Your task to perform on an android device: Open settings Image 0: 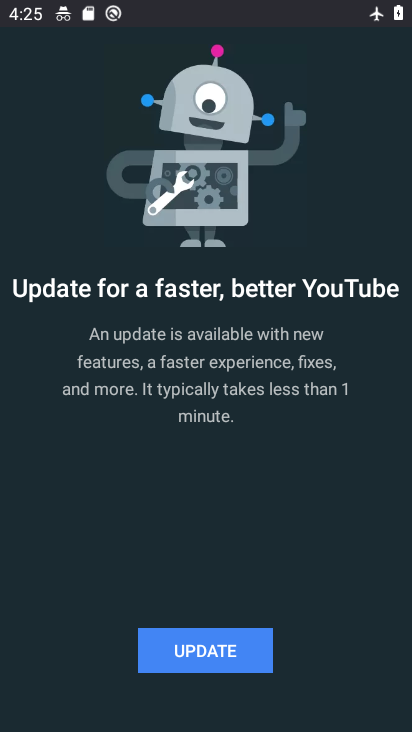
Step 0: click (199, 647)
Your task to perform on an android device: Open settings Image 1: 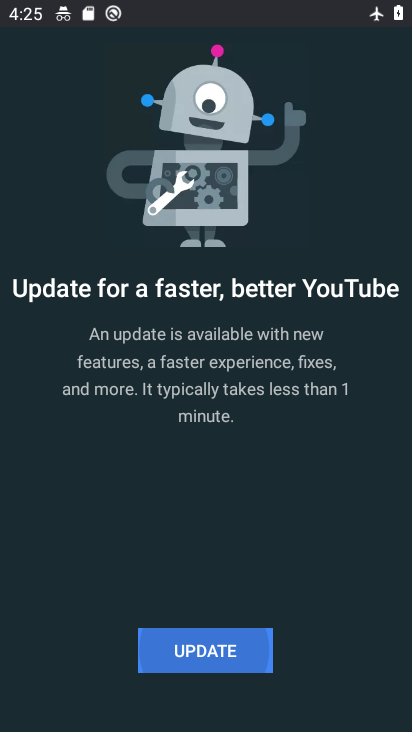
Step 1: click (195, 649)
Your task to perform on an android device: Open settings Image 2: 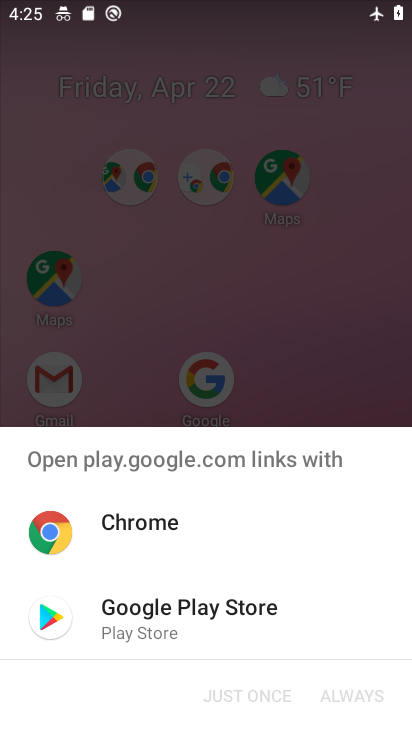
Step 2: click (225, 278)
Your task to perform on an android device: Open settings Image 3: 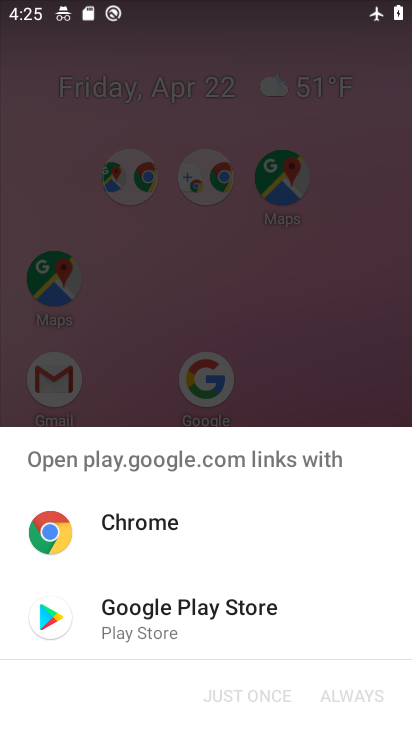
Step 3: click (232, 287)
Your task to perform on an android device: Open settings Image 4: 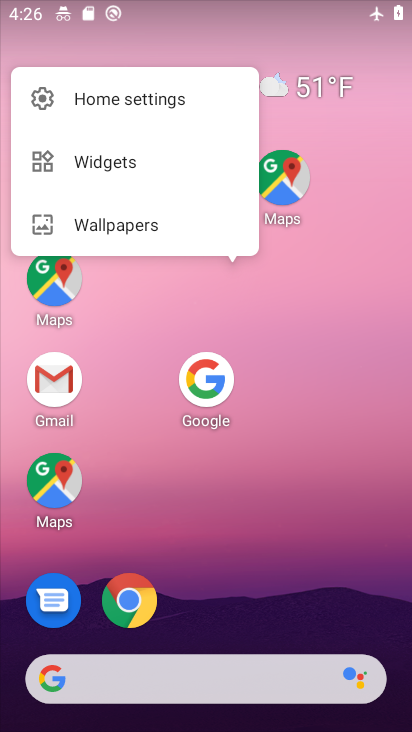
Step 4: drag from (240, 447) to (184, 180)
Your task to perform on an android device: Open settings Image 5: 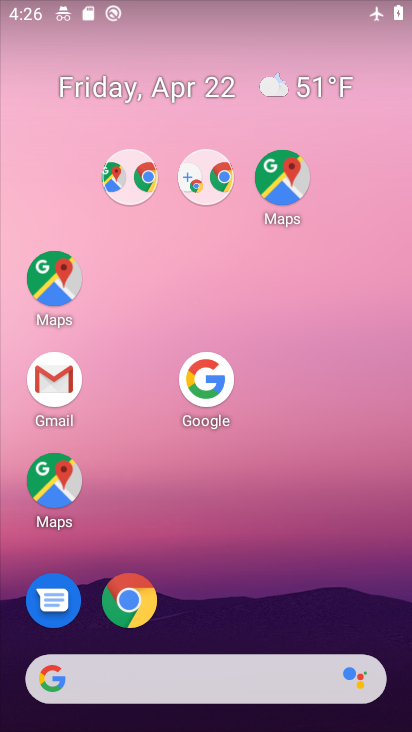
Step 5: click (267, 280)
Your task to perform on an android device: Open settings Image 6: 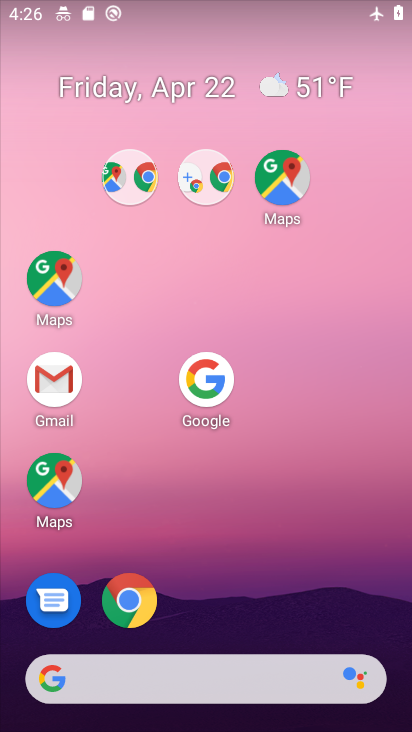
Step 6: drag from (197, 589) to (69, 44)
Your task to perform on an android device: Open settings Image 7: 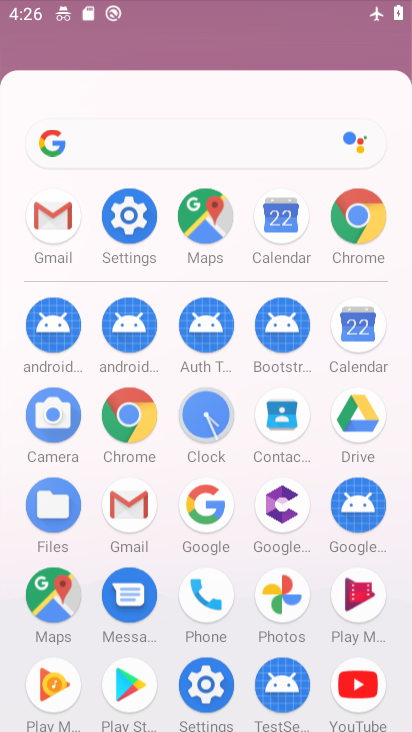
Step 7: drag from (236, 541) to (89, 54)
Your task to perform on an android device: Open settings Image 8: 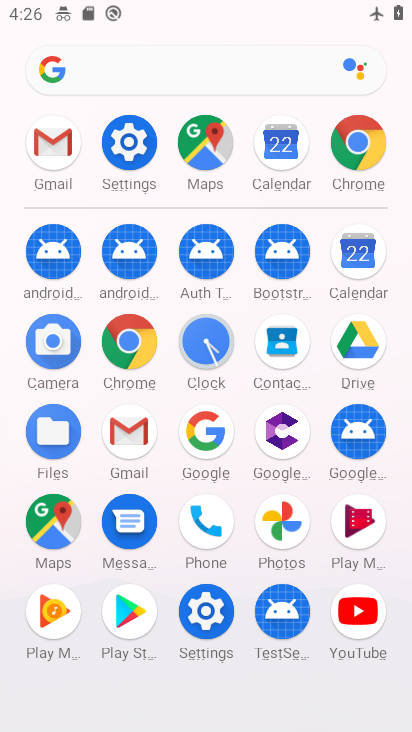
Step 8: click (126, 329)
Your task to perform on an android device: Open settings Image 9: 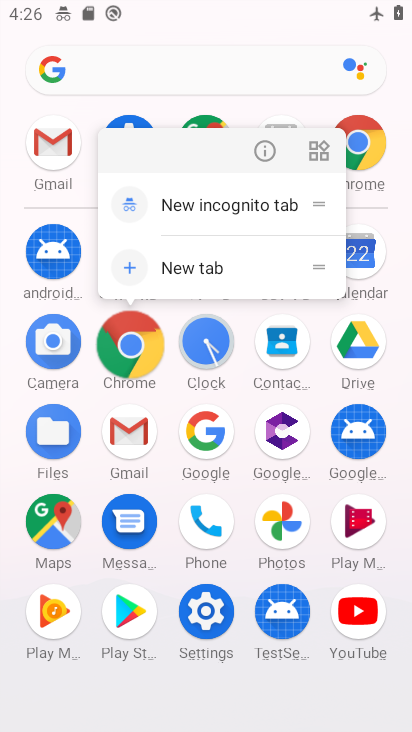
Step 9: click (125, 359)
Your task to perform on an android device: Open settings Image 10: 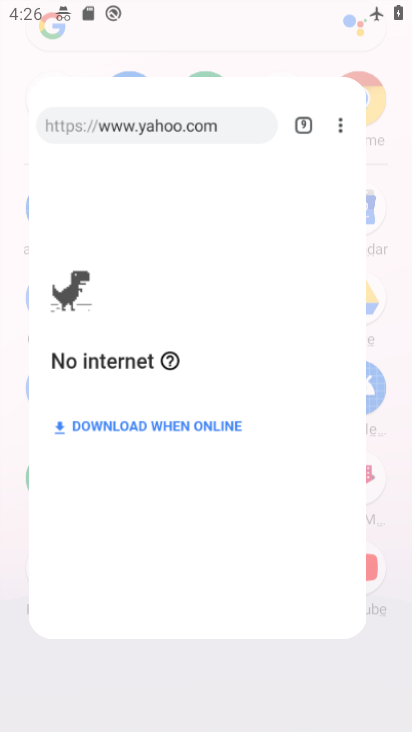
Step 10: click (125, 359)
Your task to perform on an android device: Open settings Image 11: 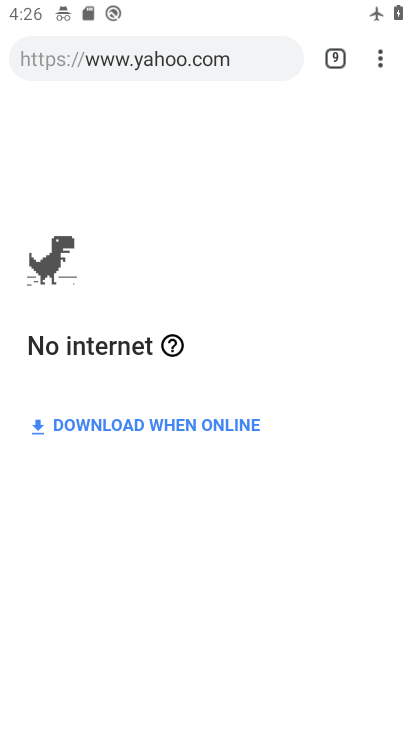
Step 11: press home button
Your task to perform on an android device: Open settings Image 12: 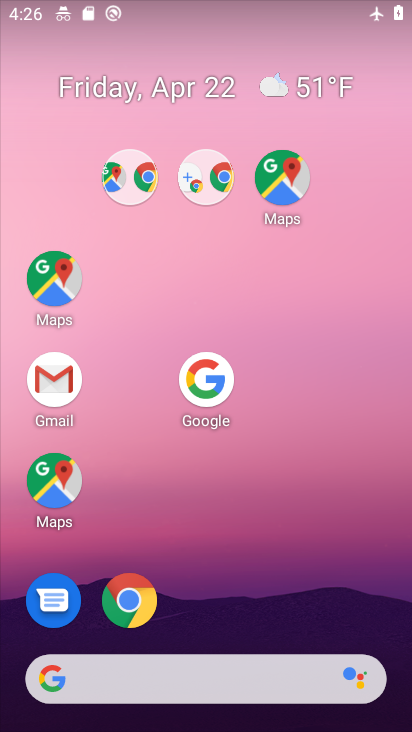
Step 12: drag from (175, 362) to (88, 96)
Your task to perform on an android device: Open settings Image 13: 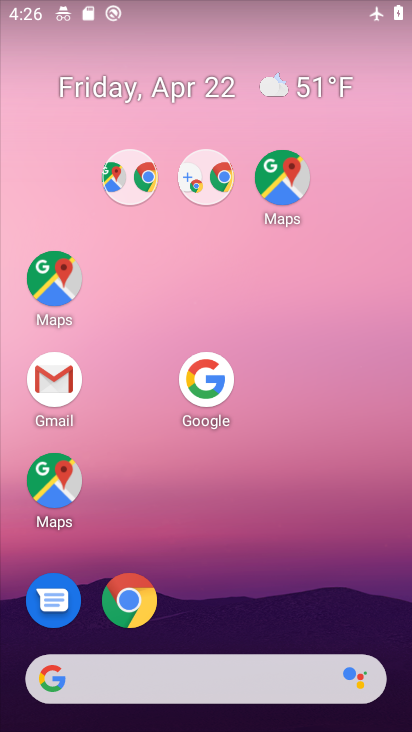
Step 13: drag from (265, 469) to (128, 15)
Your task to perform on an android device: Open settings Image 14: 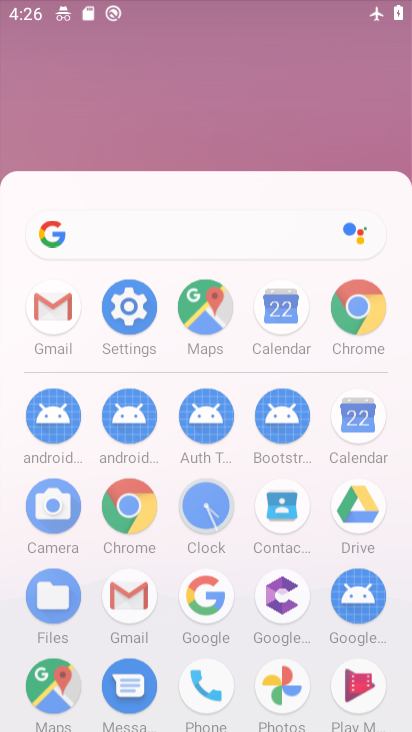
Step 14: drag from (220, 213) to (194, 132)
Your task to perform on an android device: Open settings Image 15: 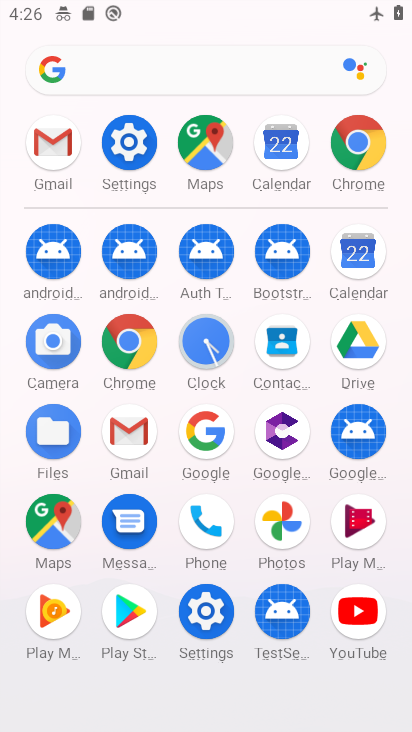
Step 15: click (124, 140)
Your task to perform on an android device: Open settings Image 16: 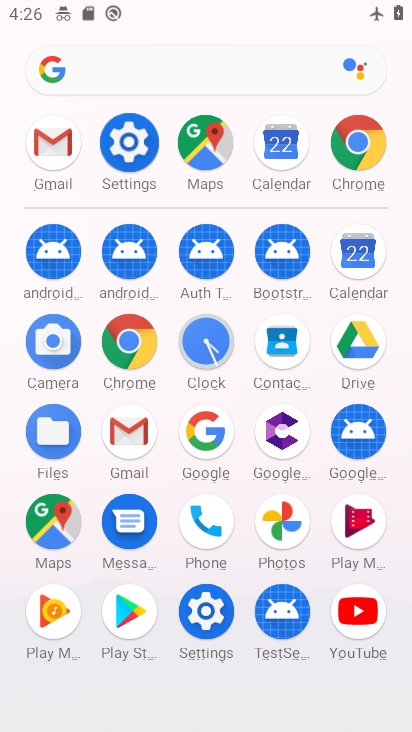
Step 16: click (127, 142)
Your task to perform on an android device: Open settings Image 17: 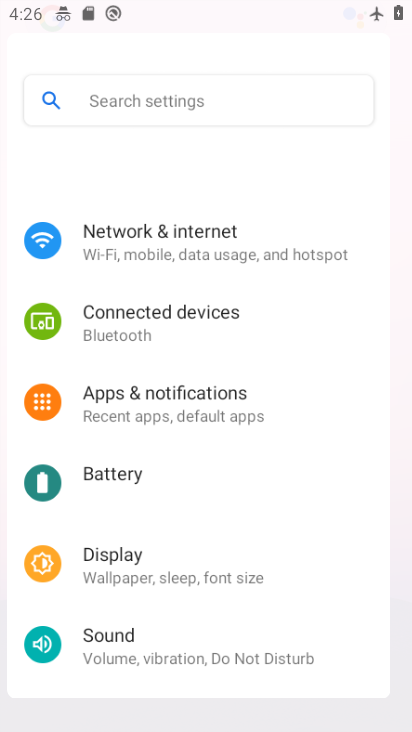
Step 17: click (128, 144)
Your task to perform on an android device: Open settings Image 18: 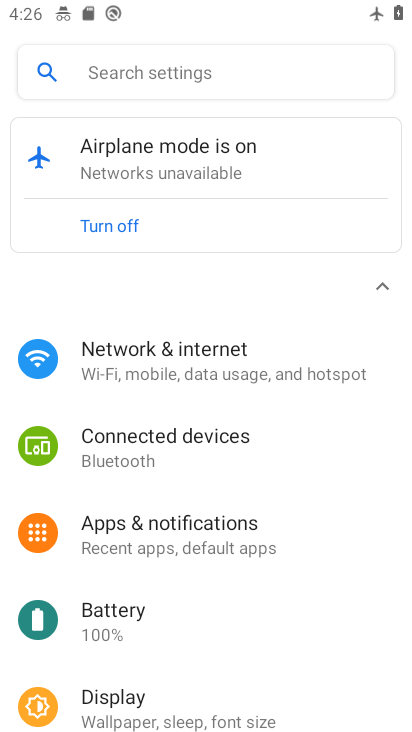
Step 18: drag from (169, 511) to (109, 194)
Your task to perform on an android device: Open settings Image 19: 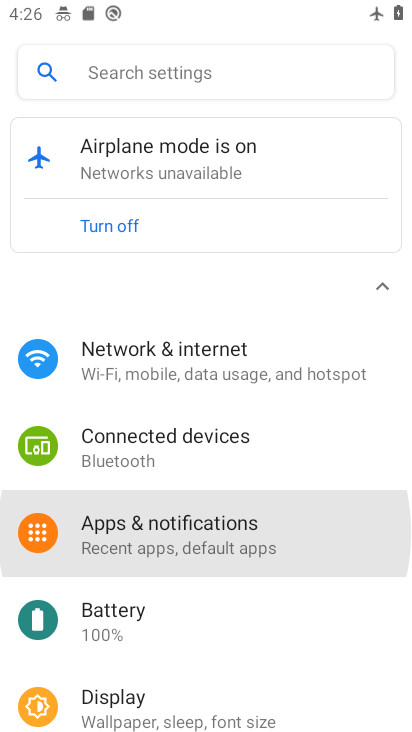
Step 19: drag from (169, 507) to (154, 188)
Your task to perform on an android device: Open settings Image 20: 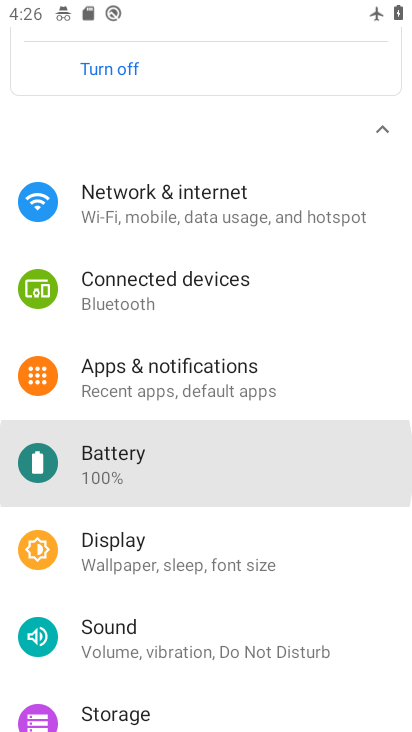
Step 20: drag from (205, 551) to (140, 254)
Your task to perform on an android device: Open settings Image 21: 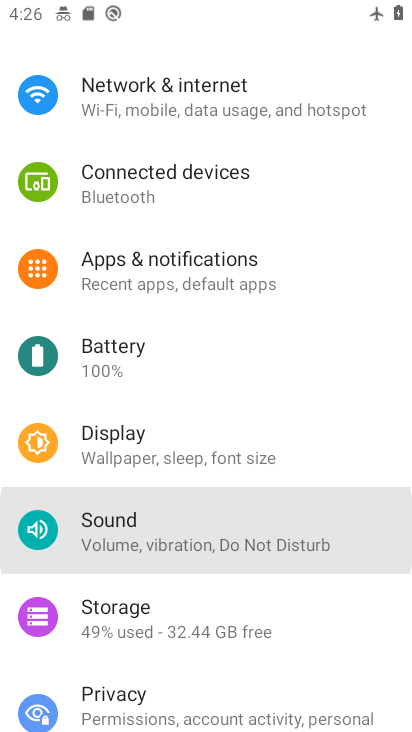
Step 21: drag from (163, 533) to (126, 194)
Your task to perform on an android device: Open settings Image 22: 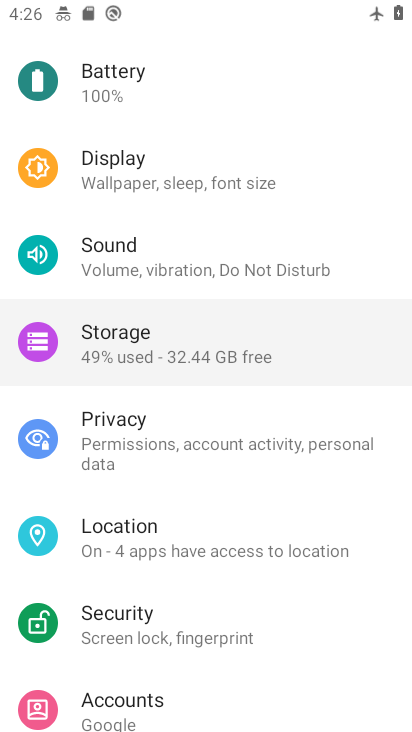
Step 22: drag from (110, 369) to (88, 183)
Your task to perform on an android device: Open settings Image 23: 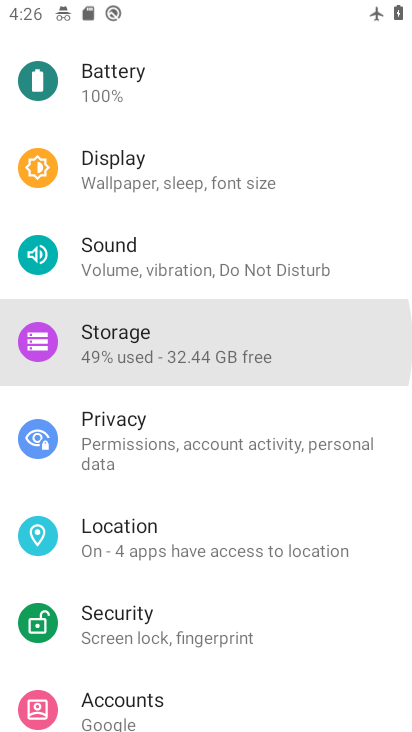
Step 23: drag from (135, 405) to (88, 130)
Your task to perform on an android device: Open settings Image 24: 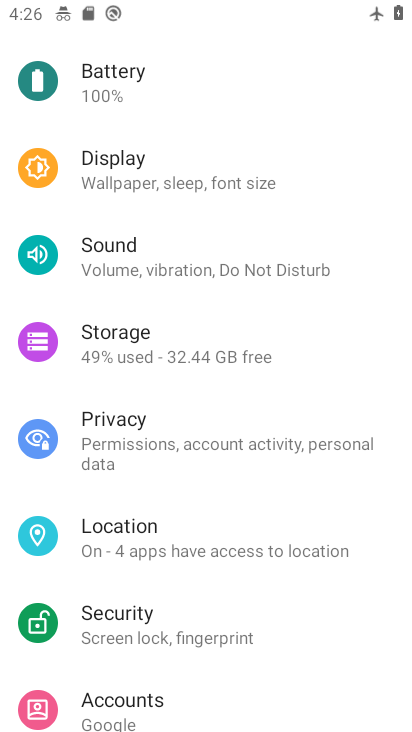
Step 24: drag from (172, 334) to (157, 541)
Your task to perform on an android device: Open settings Image 25: 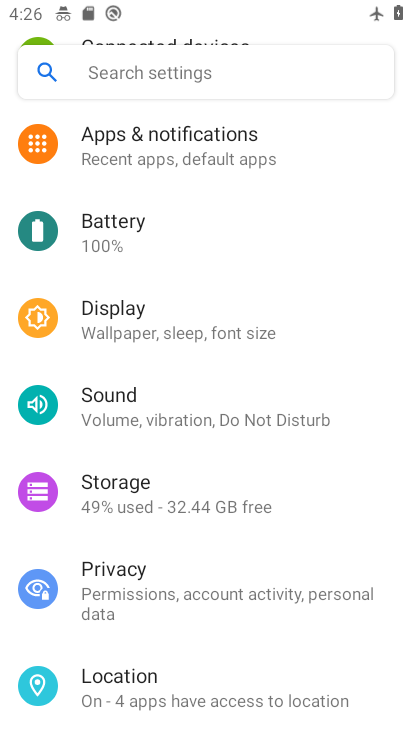
Step 25: click (216, 523)
Your task to perform on an android device: Open settings Image 26: 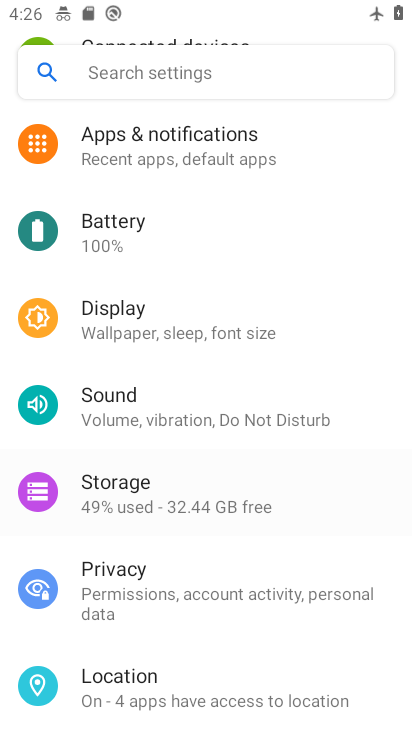
Step 26: drag from (208, 474) to (212, 538)
Your task to perform on an android device: Open settings Image 27: 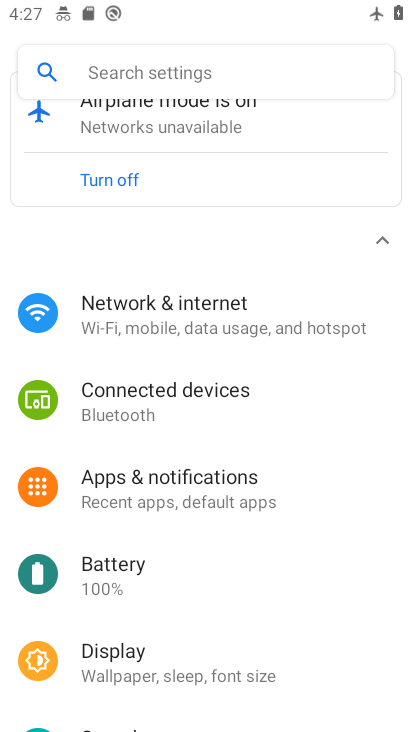
Step 27: click (259, 465)
Your task to perform on an android device: Open settings Image 28: 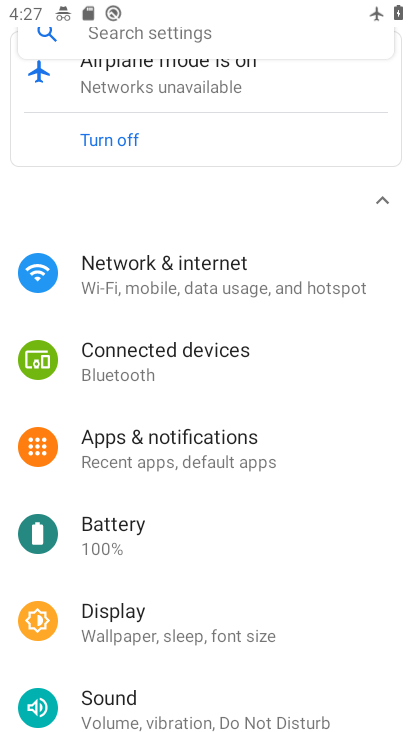
Step 28: task complete